Your task to perform on an android device: toggle data saver in the chrome app Image 0: 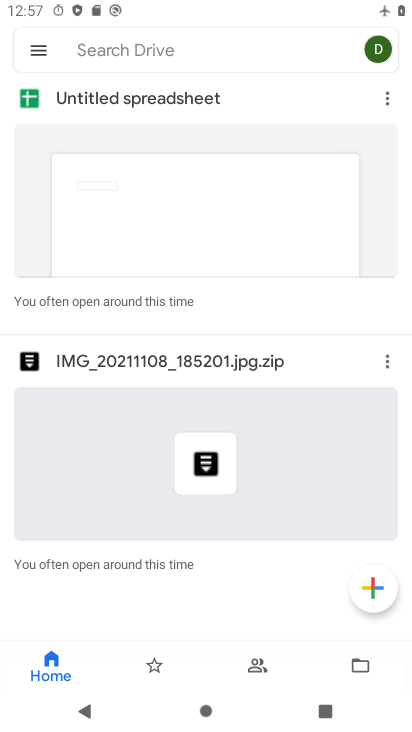
Step 0: press home button
Your task to perform on an android device: toggle data saver in the chrome app Image 1: 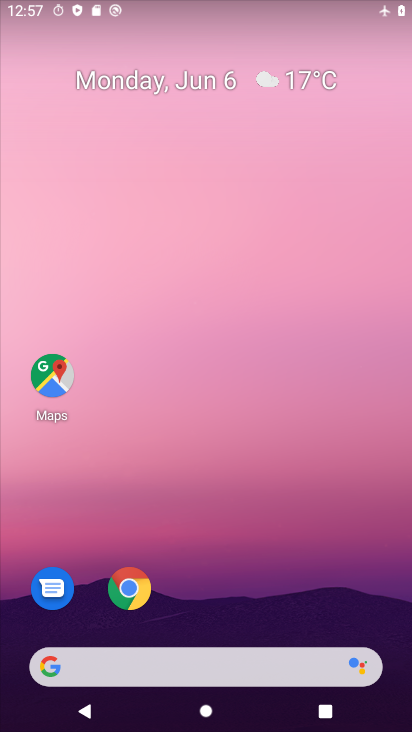
Step 1: click (130, 586)
Your task to perform on an android device: toggle data saver in the chrome app Image 2: 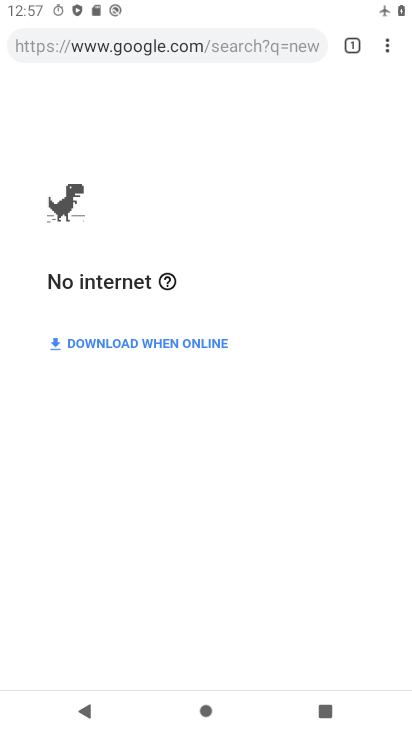
Step 2: drag from (394, 41) to (258, 520)
Your task to perform on an android device: toggle data saver in the chrome app Image 3: 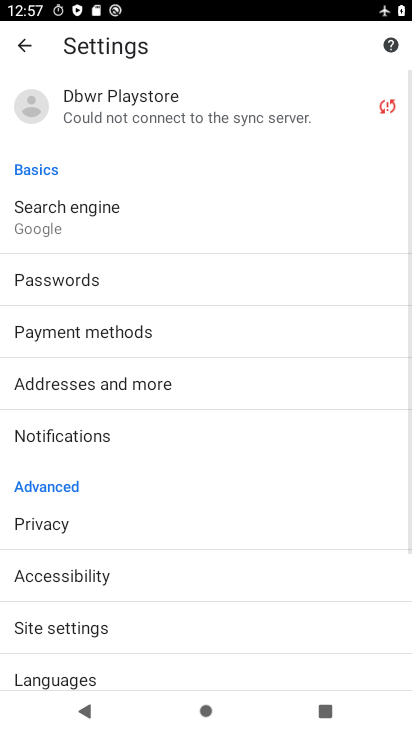
Step 3: drag from (264, 441) to (335, 46)
Your task to perform on an android device: toggle data saver in the chrome app Image 4: 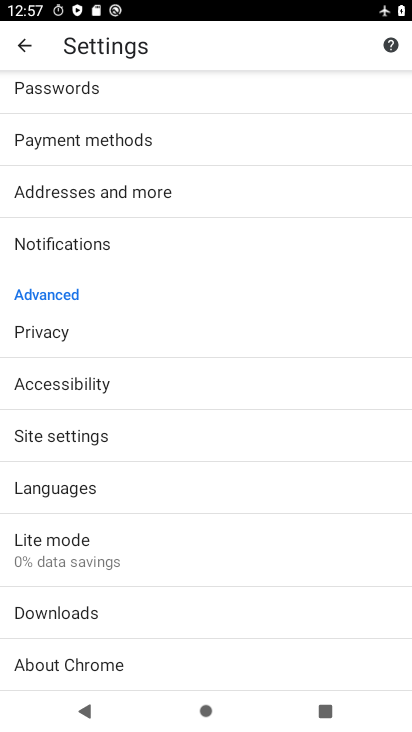
Step 4: click (107, 539)
Your task to perform on an android device: toggle data saver in the chrome app Image 5: 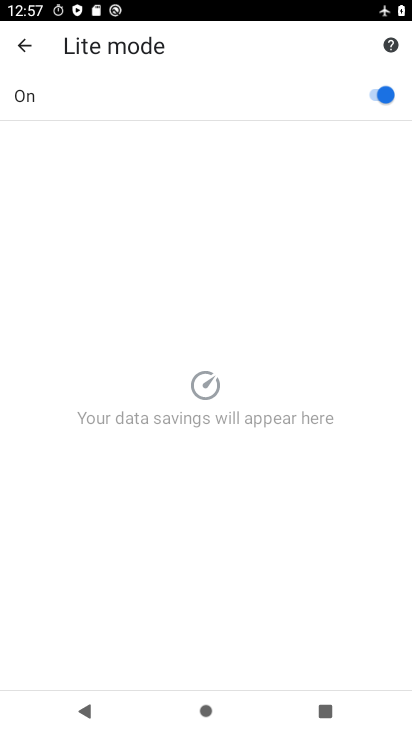
Step 5: click (381, 97)
Your task to perform on an android device: toggle data saver in the chrome app Image 6: 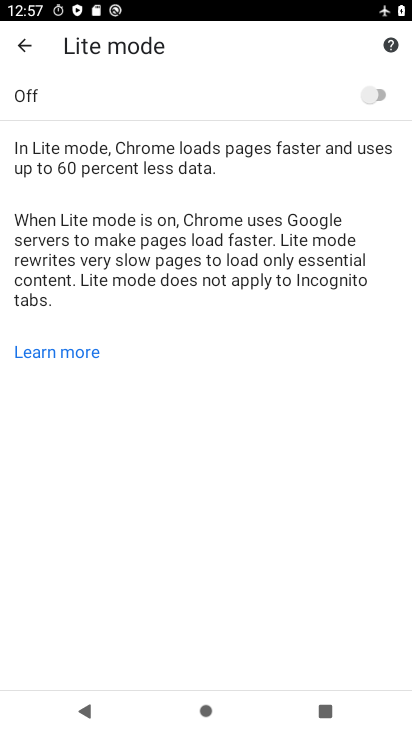
Step 6: task complete